Your task to perform on an android device: Open display settings Image 0: 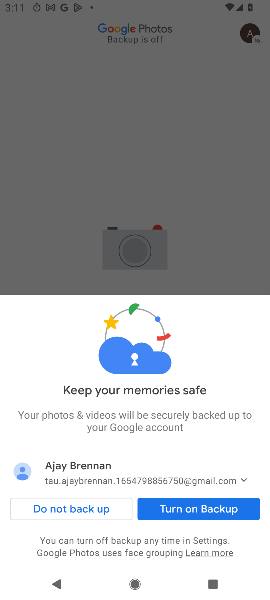
Step 0: press home button
Your task to perform on an android device: Open display settings Image 1: 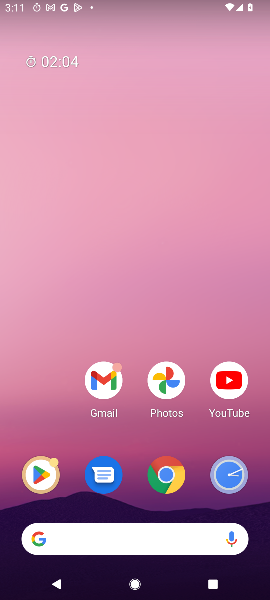
Step 1: drag from (61, 424) to (59, 143)
Your task to perform on an android device: Open display settings Image 2: 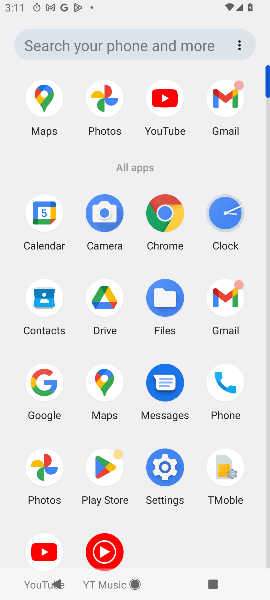
Step 2: click (166, 466)
Your task to perform on an android device: Open display settings Image 3: 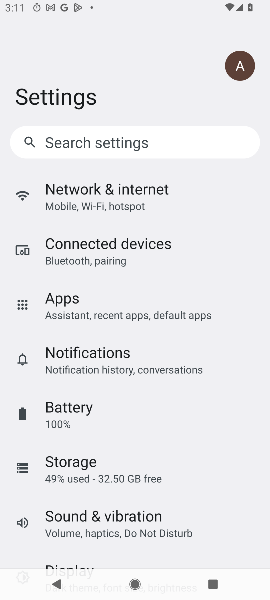
Step 3: drag from (200, 494) to (222, 357)
Your task to perform on an android device: Open display settings Image 4: 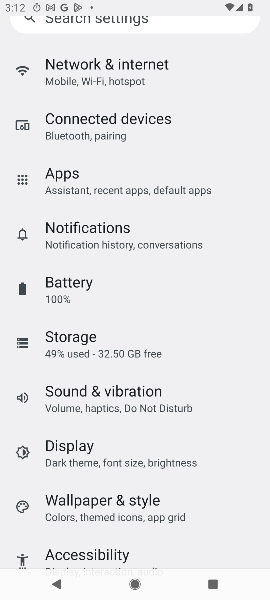
Step 4: drag from (225, 478) to (226, 363)
Your task to perform on an android device: Open display settings Image 5: 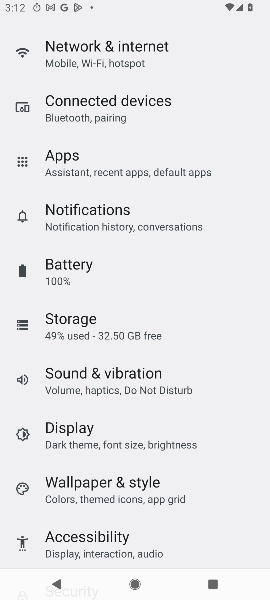
Step 5: drag from (226, 495) to (226, 396)
Your task to perform on an android device: Open display settings Image 6: 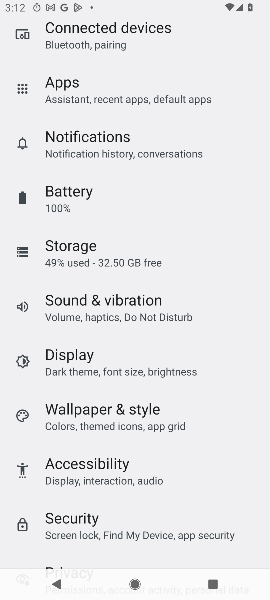
Step 6: drag from (222, 521) to (241, 348)
Your task to perform on an android device: Open display settings Image 7: 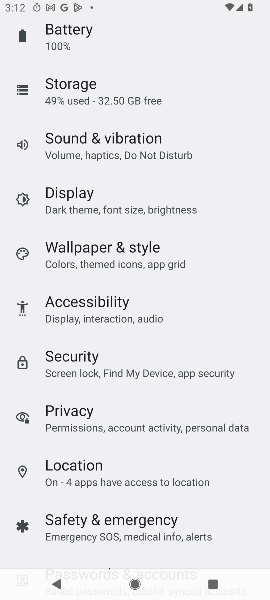
Step 7: drag from (231, 511) to (239, 378)
Your task to perform on an android device: Open display settings Image 8: 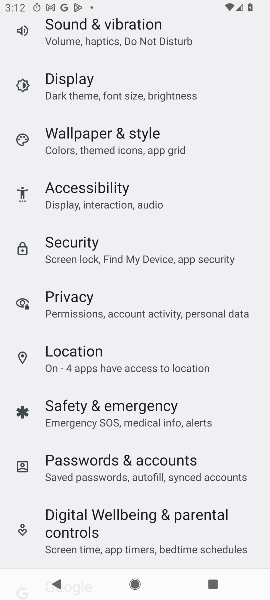
Step 8: drag from (253, 454) to (248, 326)
Your task to perform on an android device: Open display settings Image 9: 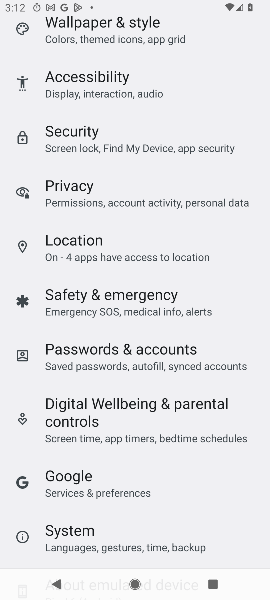
Step 9: drag from (237, 504) to (233, 319)
Your task to perform on an android device: Open display settings Image 10: 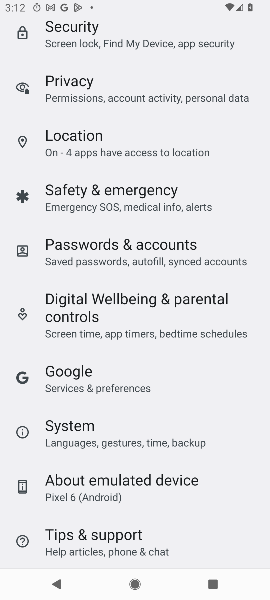
Step 10: drag from (236, 352) to (242, 468)
Your task to perform on an android device: Open display settings Image 11: 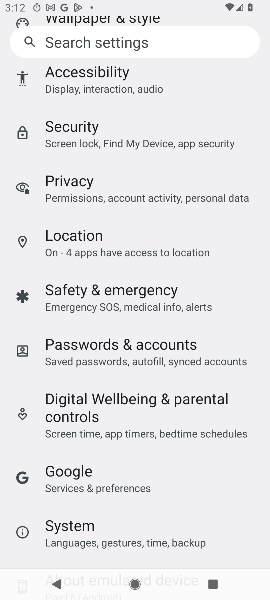
Step 11: drag from (242, 274) to (242, 385)
Your task to perform on an android device: Open display settings Image 12: 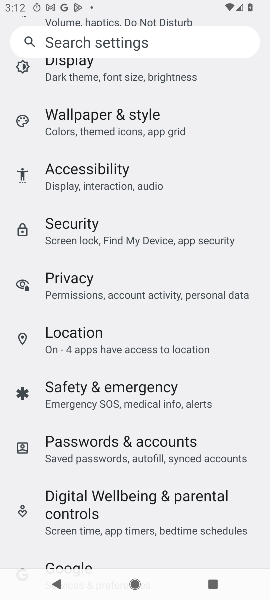
Step 12: drag from (241, 240) to (248, 346)
Your task to perform on an android device: Open display settings Image 13: 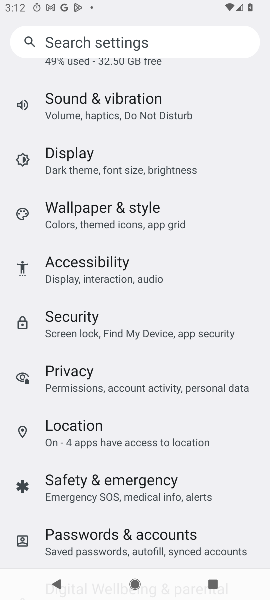
Step 13: drag from (231, 188) to (232, 316)
Your task to perform on an android device: Open display settings Image 14: 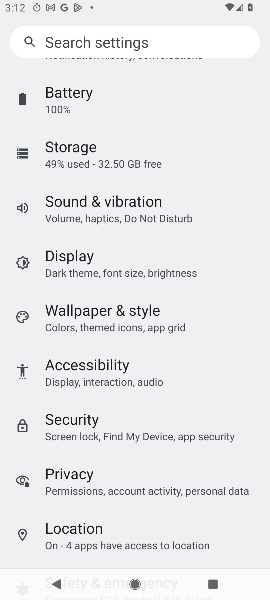
Step 14: drag from (235, 147) to (243, 333)
Your task to perform on an android device: Open display settings Image 15: 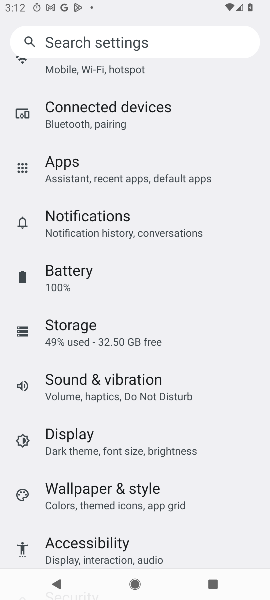
Step 15: click (141, 439)
Your task to perform on an android device: Open display settings Image 16: 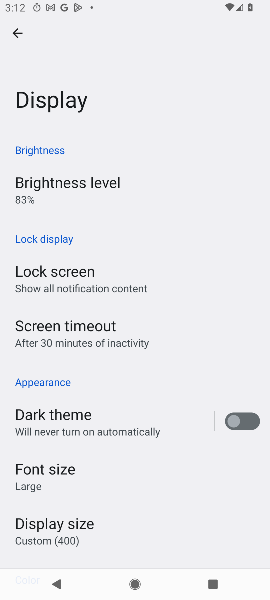
Step 16: task complete